Your task to perform on an android device: change keyboard looks Image 0: 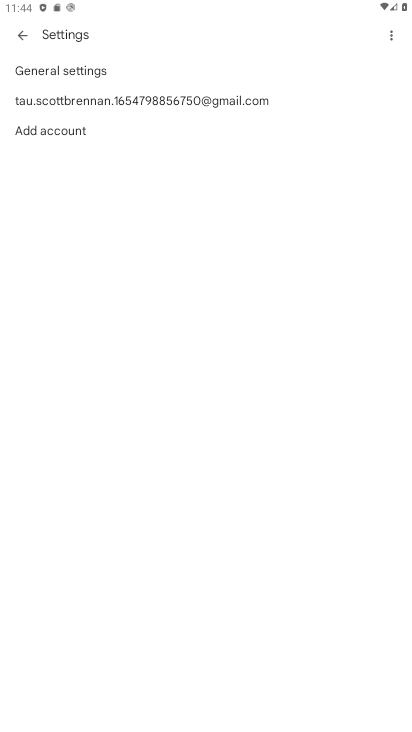
Step 0: press home button
Your task to perform on an android device: change keyboard looks Image 1: 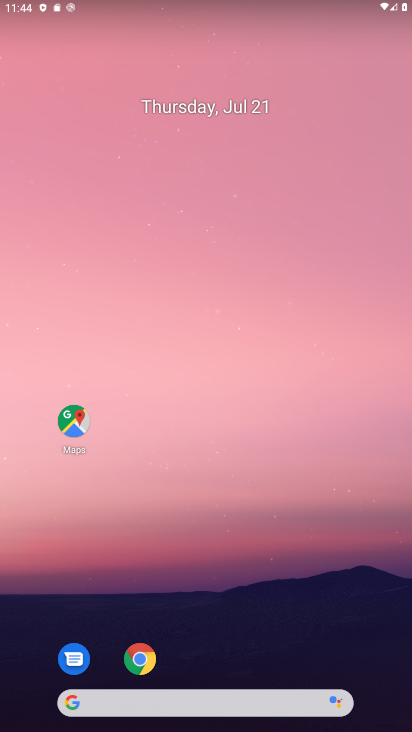
Step 1: drag from (252, 678) to (258, 200)
Your task to perform on an android device: change keyboard looks Image 2: 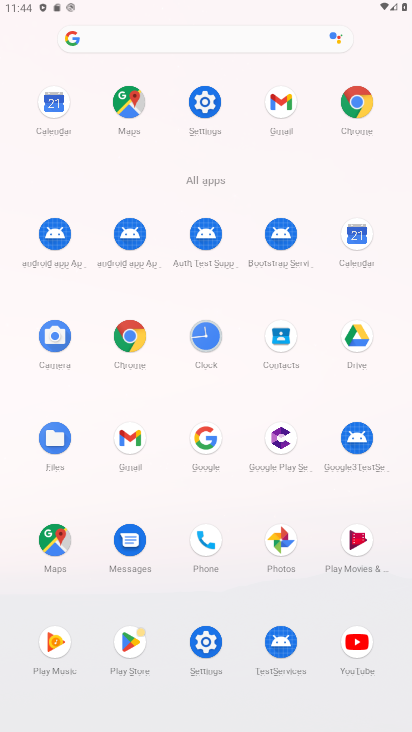
Step 2: click (183, 109)
Your task to perform on an android device: change keyboard looks Image 3: 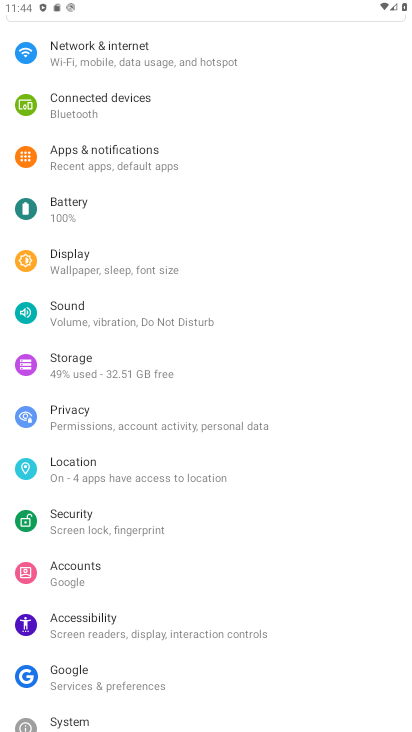
Step 3: drag from (240, 635) to (279, 133)
Your task to perform on an android device: change keyboard looks Image 4: 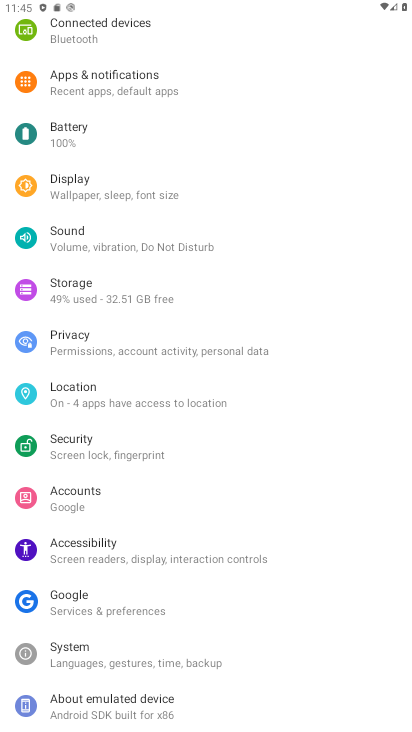
Step 4: click (200, 668)
Your task to perform on an android device: change keyboard looks Image 5: 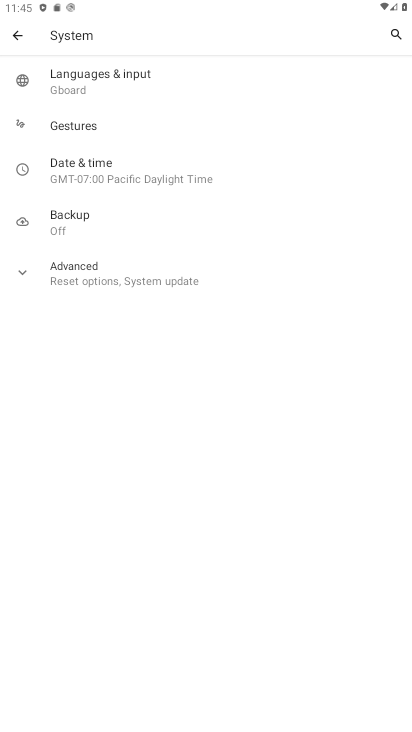
Step 5: task complete